Your task to perform on an android device: empty trash in the gmail app Image 0: 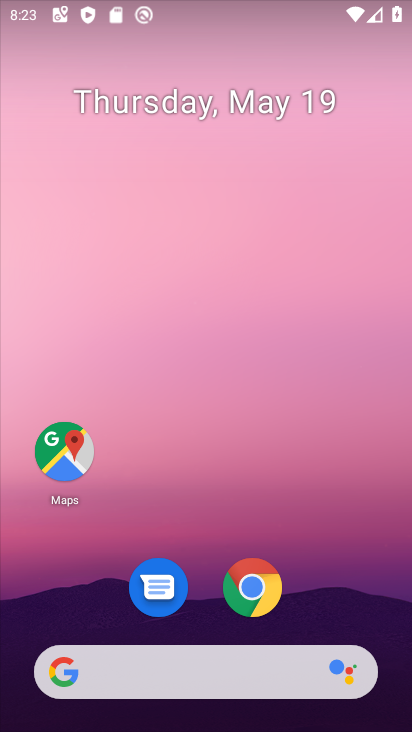
Step 0: drag from (331, 534) to (297, 81)
Your task to perform on an android device: empty trash in the gmail app Image 1: 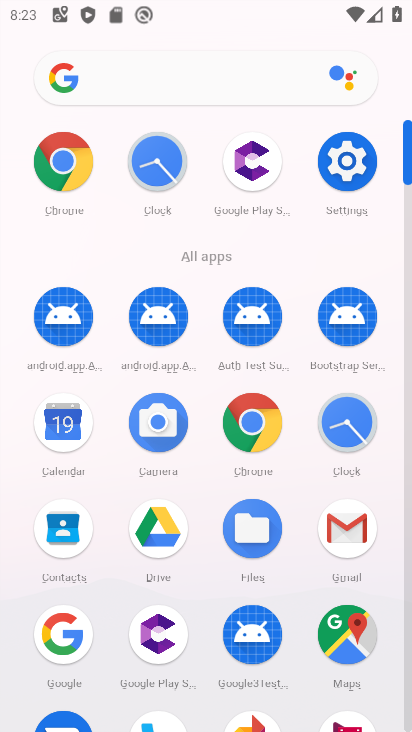
Step 1: drag from (16, 553) to (16, 293)
Your task to perform on an android device: empty trash in the gmail app Image 2: 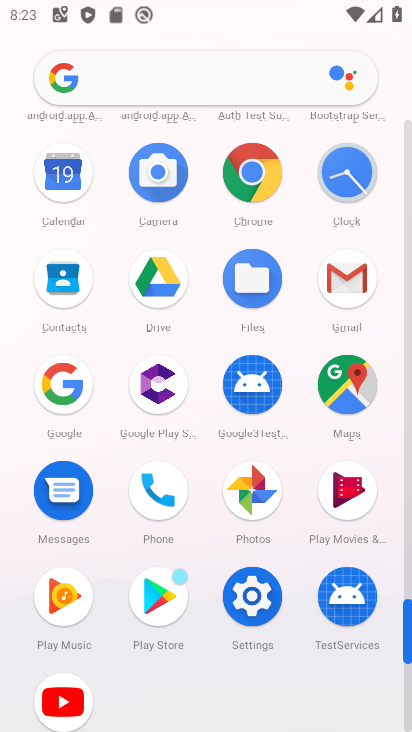
Step 2: click (349, 271)
Your task to perform on an android device: empty trash in the gmail app Image 3: 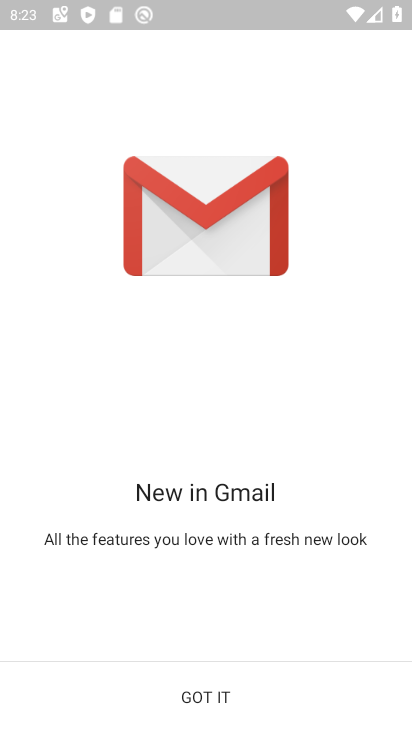
Step 3: click (178, 682)
Your task to perform on an android device: empty trash in the gmail app Image 4: 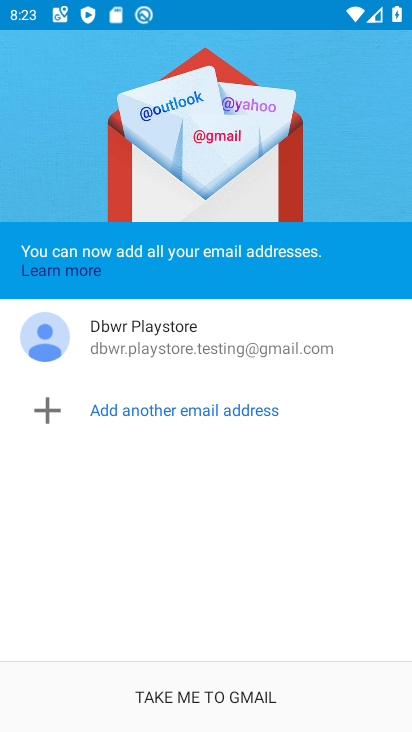
Step 4: click (223, 685)
Your task to perform on an android device: empty trash in the gmail app Image 5: 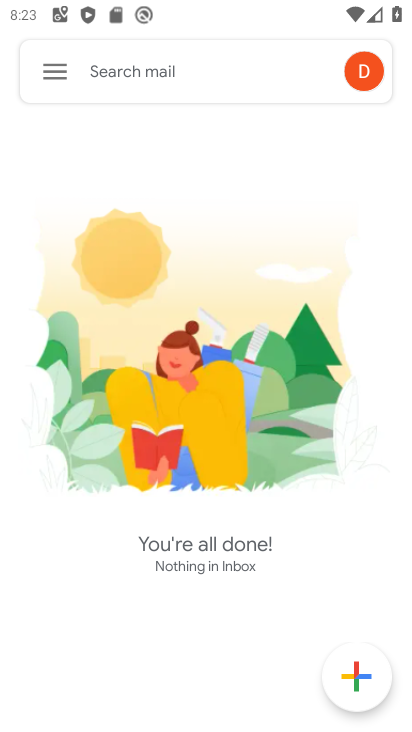
Step 5: click (49, 69)
Your task to perform on an android device: empty trash in the gmail app Image 6: 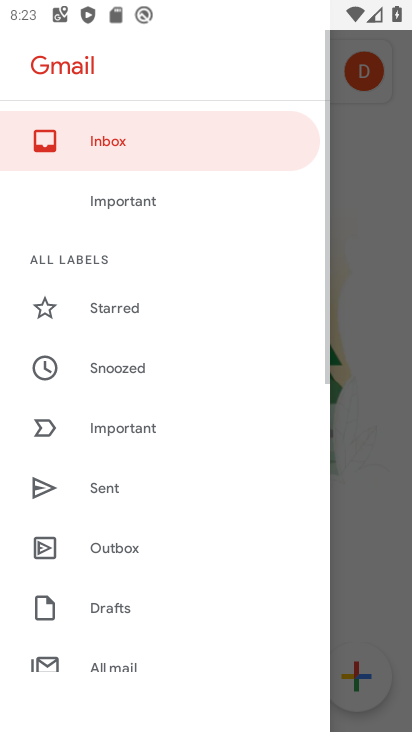
Step 6: drag from (153, 585) to (173, 188)
Your task to perform on an android device: empty trash in the gmail app Image 7: 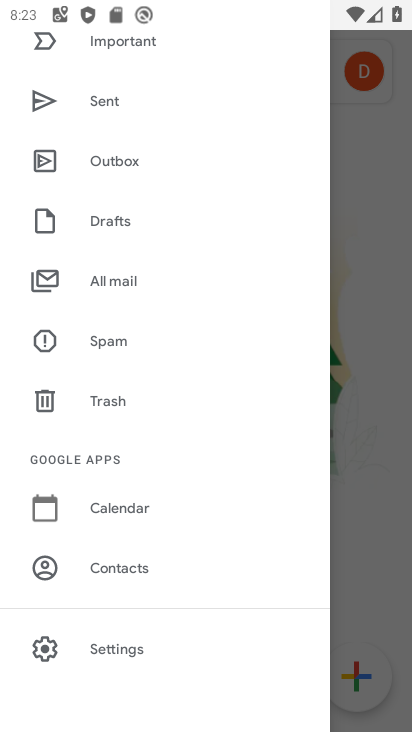
Step 7: drag from (141, 602) to (214, 238)
Your task to perform on an android device: empty trash in the gmail app Image 8: 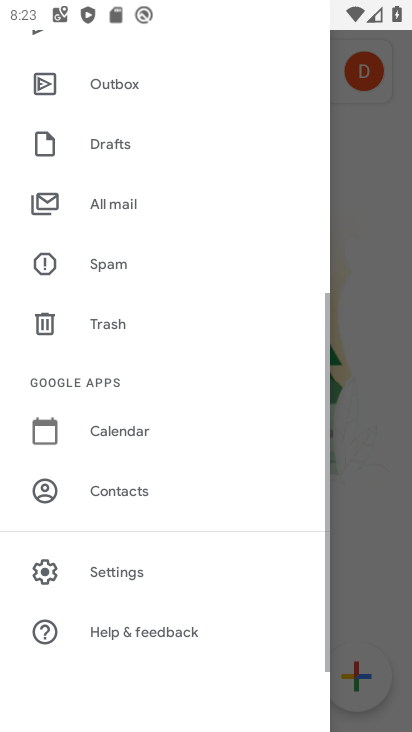
Step 8: click (111, 321)
Your task to perform on an android device: empty trash in the gmail app Image 9: 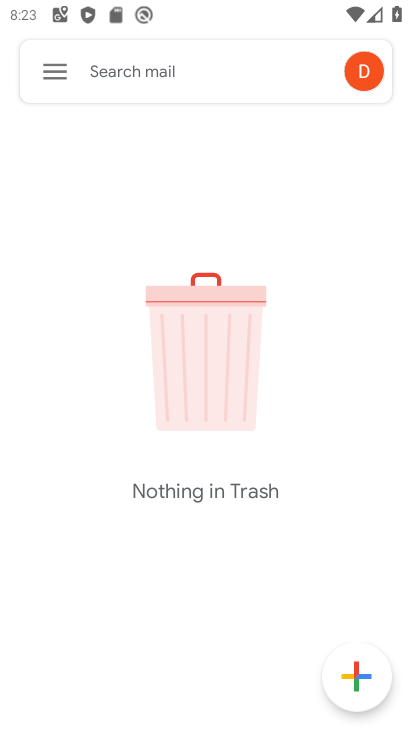
Step 9: task complete